Your task to perform on an android device: Is it going to rain this weekend? Image 0: 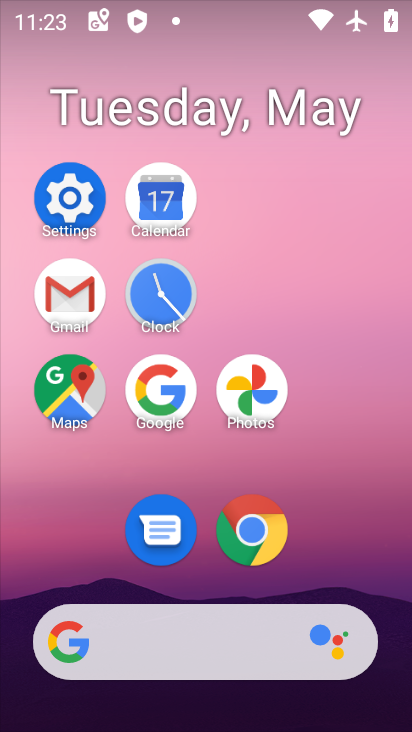
Step 0: click (155, 407)
Your task to perform on an android device: Is it going to rain this weekend? Image 1: 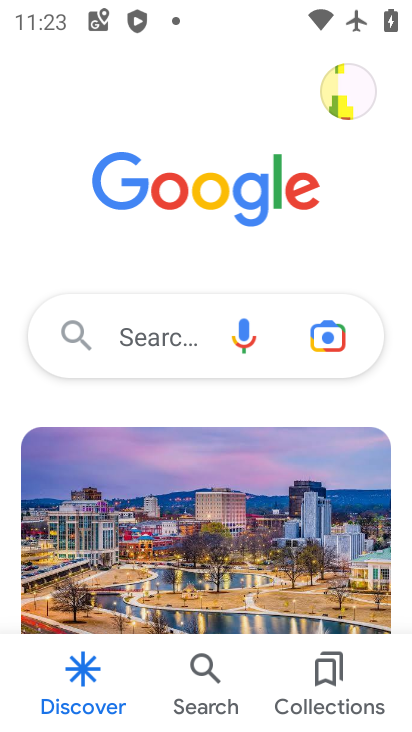
Step 1: click (180, 344)
Your task to perform on an android device: Is it going to rain this weekend? Image 2: 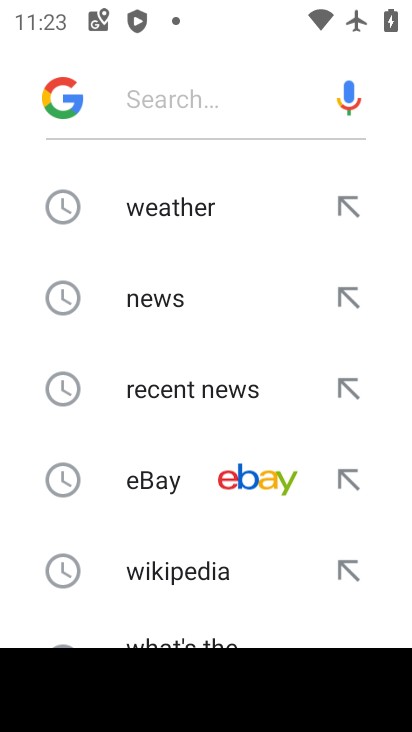
Step 2: drag from (144, 202) to (81, 202)
Your task to perform on an android device: Is it going to rain this weekend? Image 3: 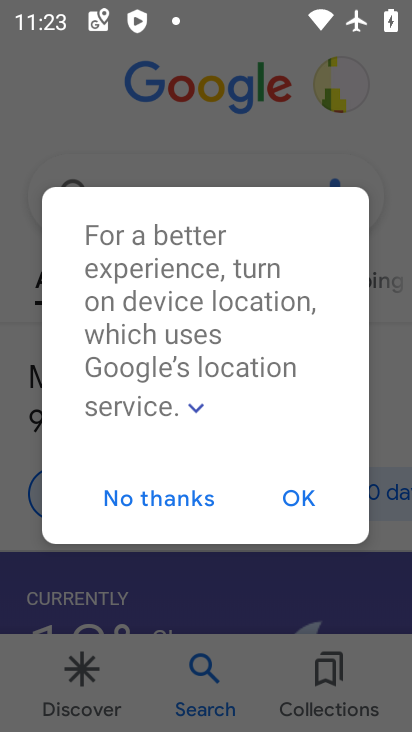
Step 3: click (354, 485)
Your task to perform on an android device: Is it going to rain this weekend? Image 4: 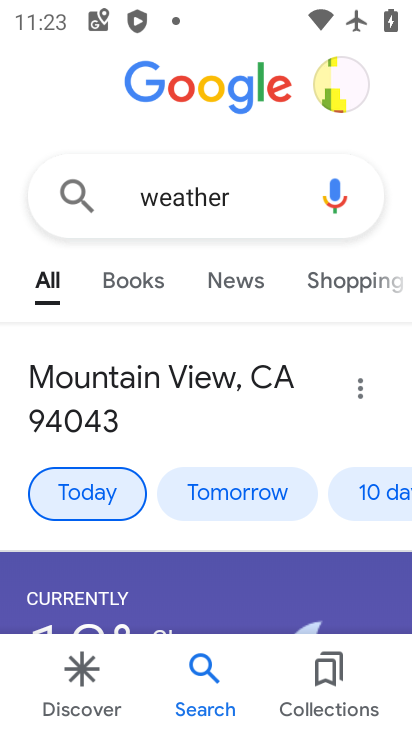
Step 4: click (368, 498)
Your task to perform on an android device: Is it going to rain this weekend? Image 5: 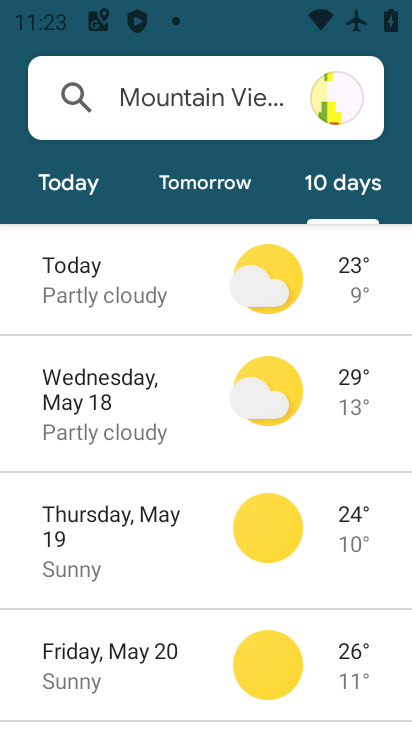
Step 5: drag from (160, 654) to (106, 323)
Your task to perform on an android device: Is it going to rain this weekend? Image 6: 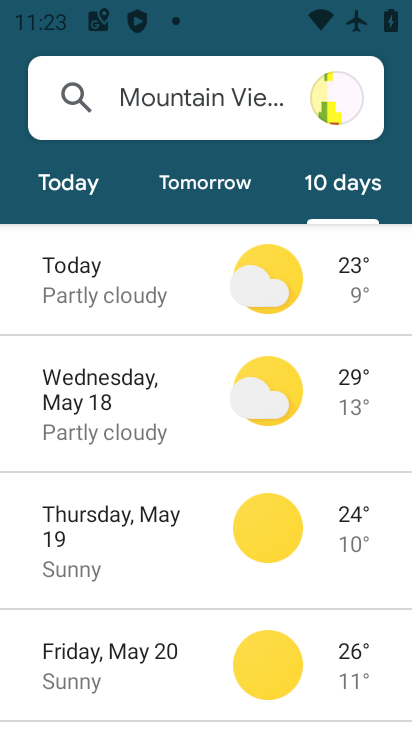
Step 6: drag from (197, 664) to (233, 284)
Your task to perform on an android device: Is it going to rain this weekend? Image 7: 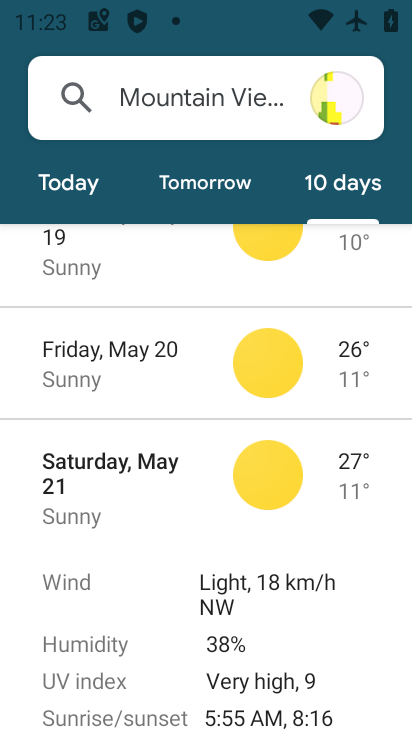
Step 7: click (128, 446)
Your task to perform on an android device: Is it going to rain this weekend? Image 8: 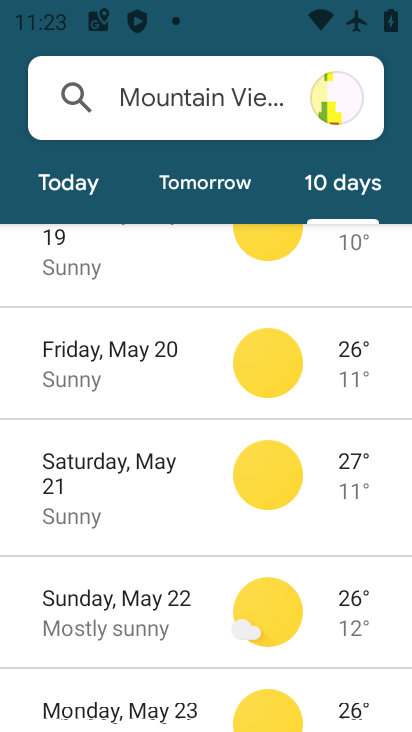
Step 8: task complete